Your task to perform on an android device: Do I have any events tomorrow? Image 0: 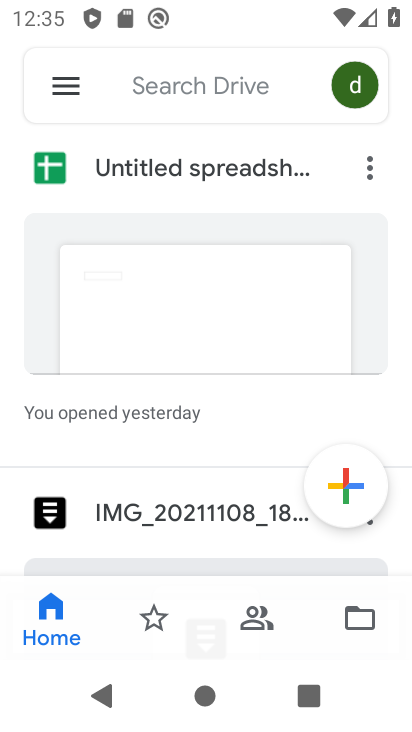
Step 0: press home button
Your task to perform on an android device: Do I have any events tomorrow? Image 1: 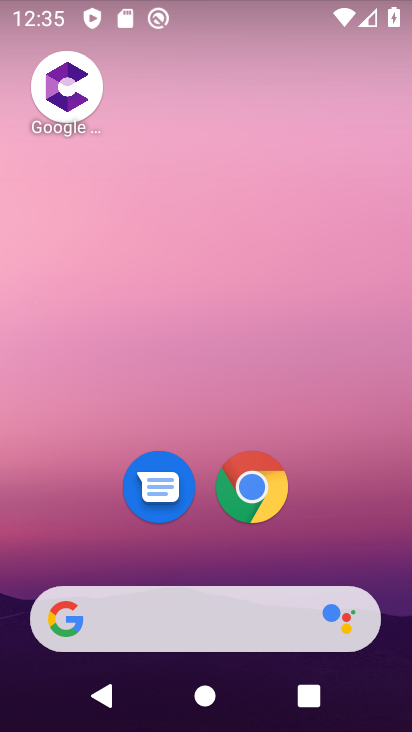
Step 1: drag from (184, 531) to (219, 62)
Your task to perform on an android device: Do I have any events tomorrow? Image 2: 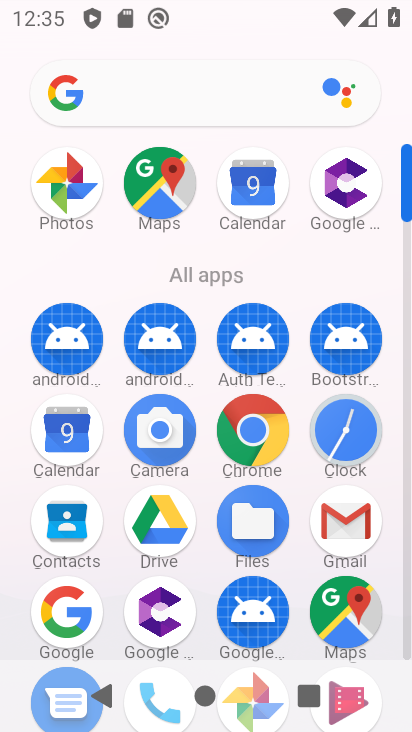
Step 2: click (68, 429)
Your task to perform on an android device: Do I have any events tomorrow? Image 3: 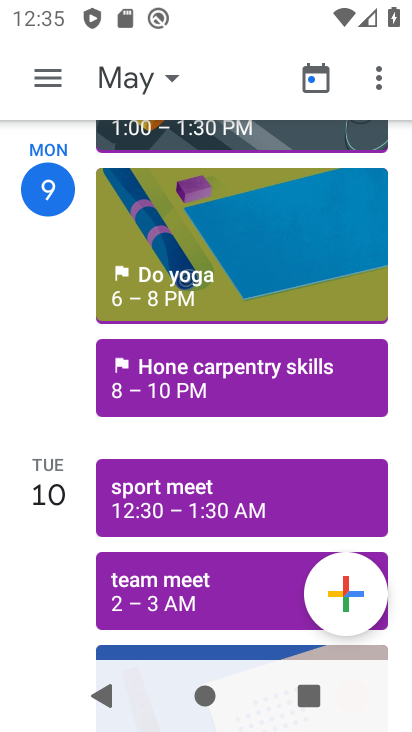
Step 3: task complete